Your task to perform on an android device: visit the assistant section in the google photos Image 0: 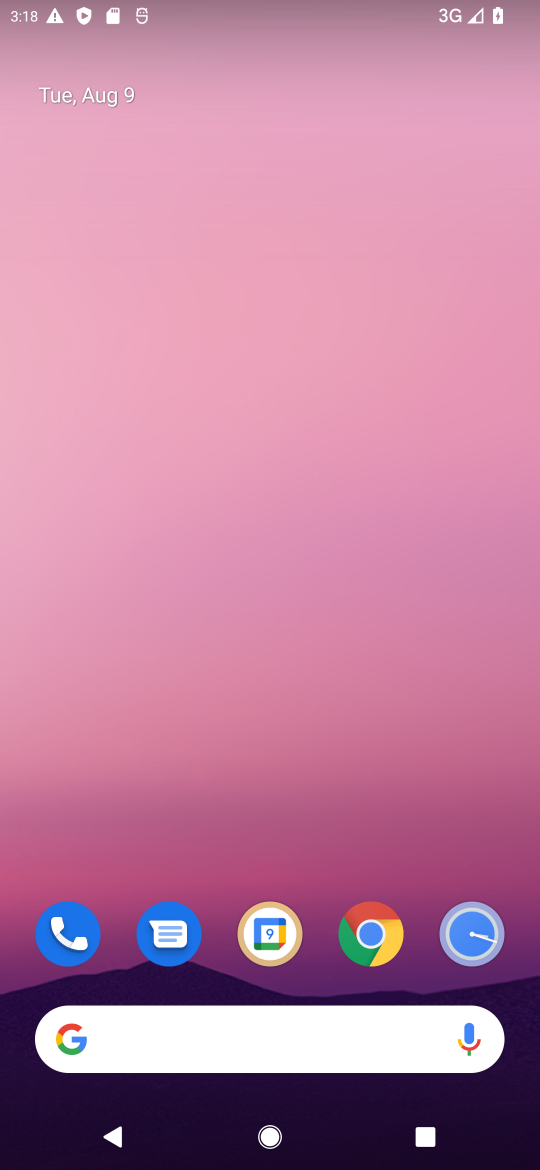
Step 0: task complete